Your task to perform on an android device: Go to Maps Image 0: 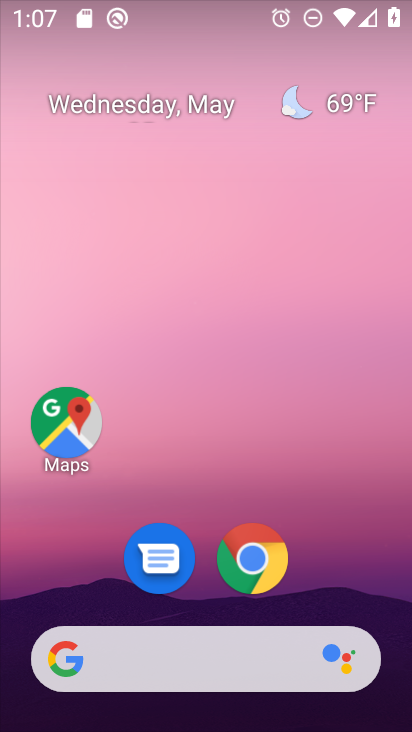
Step 0: drag from (389, 618) to (348, 115)
Your task to perform on an android device: Go to Maps Image 1: 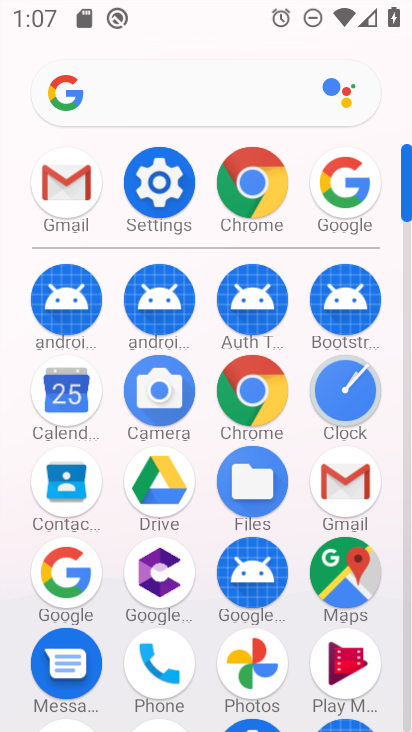
Step 1: click (348, 567)
Your task to perform on an android device: Go to Maps Image 2: 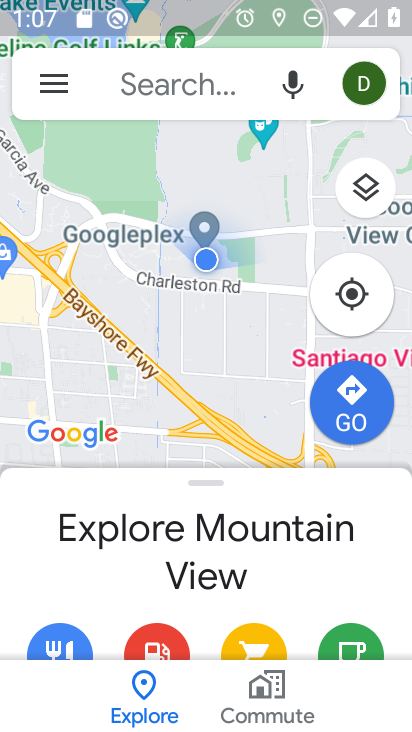
Step 2: task complete